Your task to perform on an android device: Search for vegetarian restaurants on Maps Image 0: 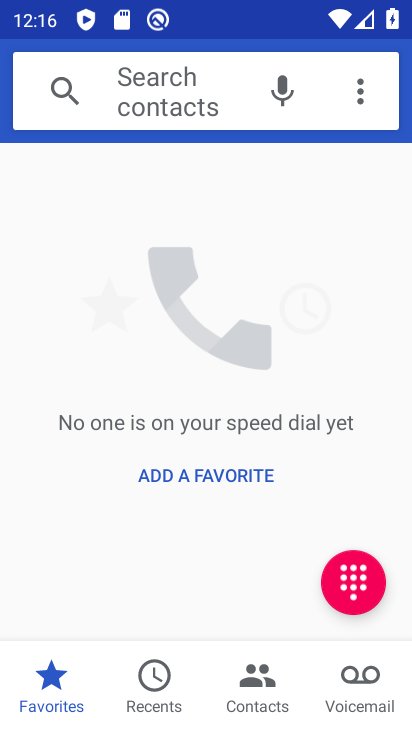
Step 0: press home button
Your task to perform on an android device: Search for vegetarian restaurants on Maps Image 1: 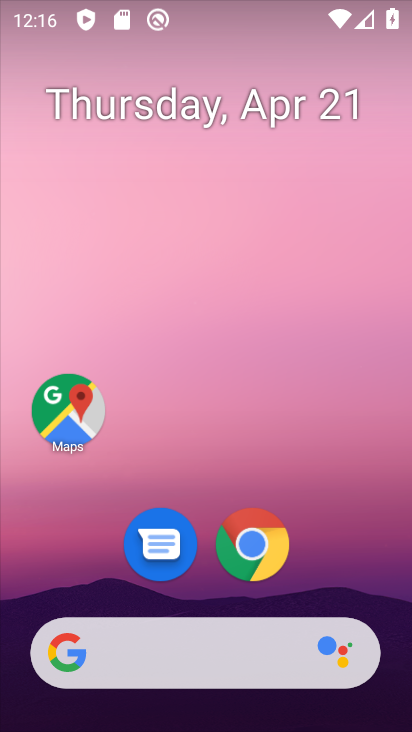
Step 1: click (90, 424)
Your task to perform on an android device: Search for vegetarian restaurants on Maps Image 2: 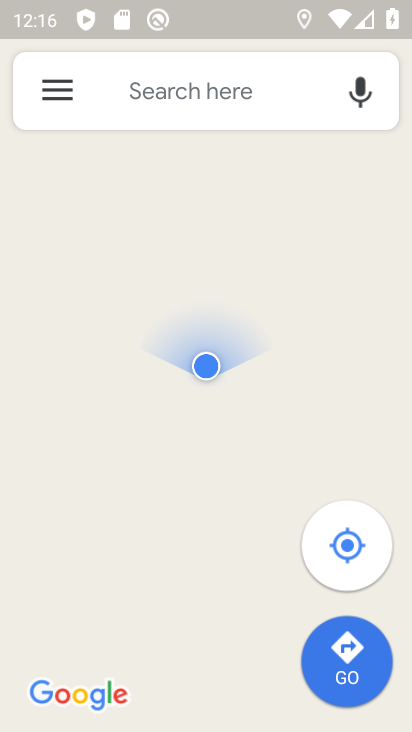
Step 2: click (237, 107)
Your task to perform on an android device: Search for vegetarian restaurants on Maps Image 3: 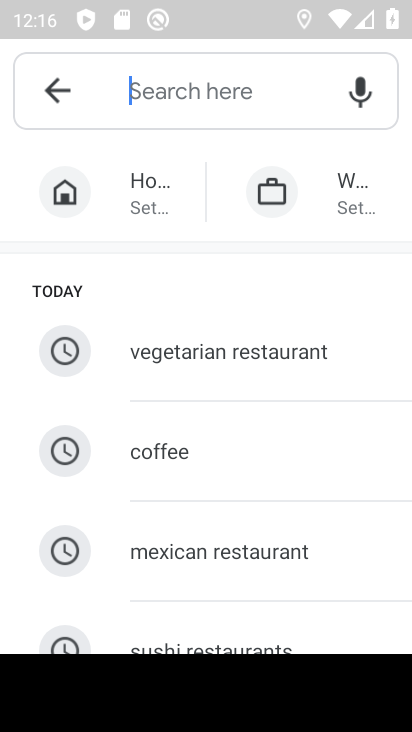
Step 3: type "vegetarian restaurants"
Your task to perform on an android device: Search for vegetarian restaurants on Maps Image 4: 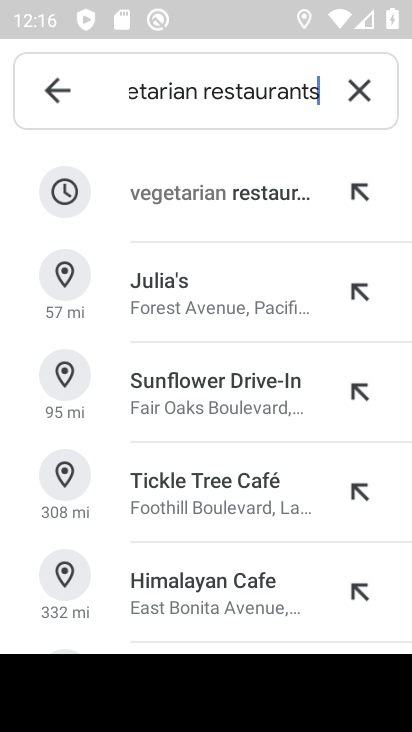
Step 4: click (225, 211)
Your task to perform on an android device: Search for vegetarian restaurants on Maps Image 5: 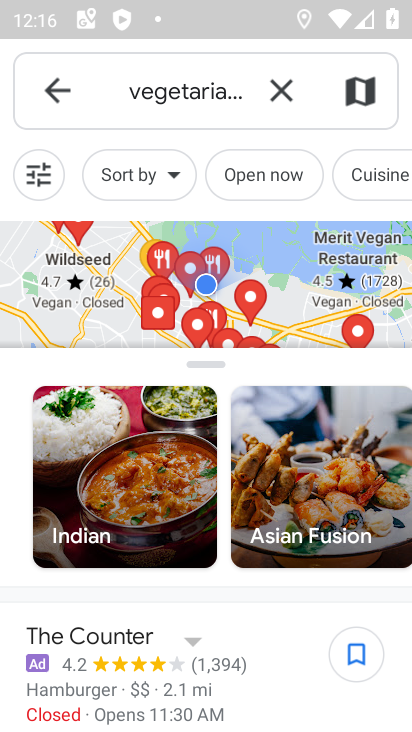
Step 5: task complete